Your task to perform on an android device: turn off notifications in google photos Image 0: 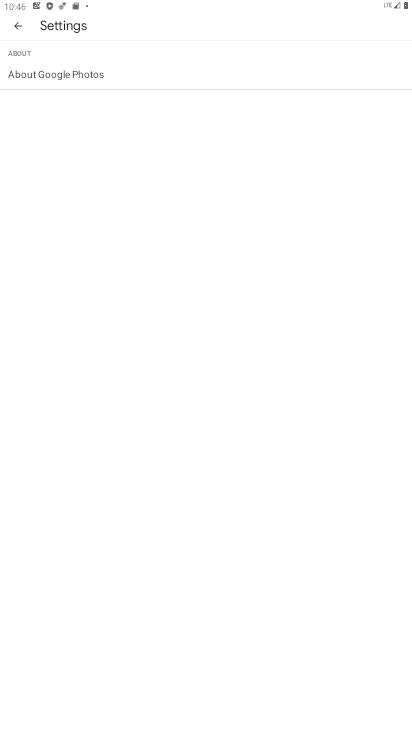
Step 0: press home button
Your task to perform on an android device: turn off notifications in google photos Image 1: 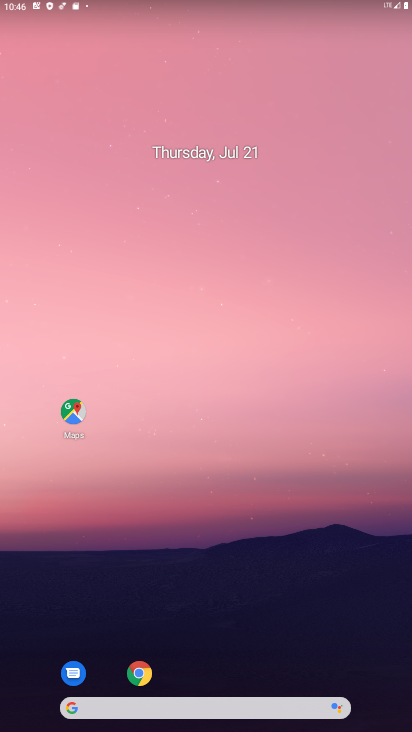
Step 1: drag from (214, 662) to (191, 285)
Your task to perform on an android device: turn off notifications in google photos Image 2: 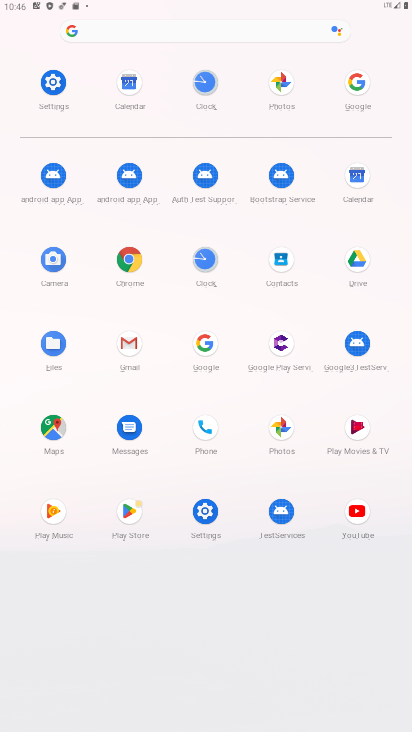
Step 2: click (286, 103)
Your task to perform on an android device: turn off notifications in google photos Image 3: 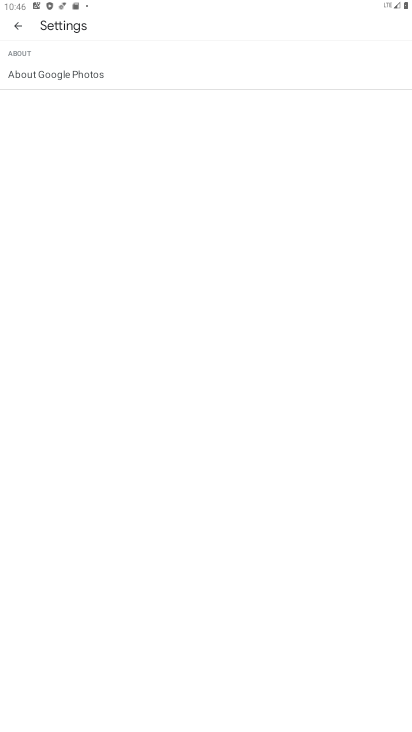
Step 3: click (21, 23)
Your task to perform on an android device: turn off notifications in google photos Image 4: 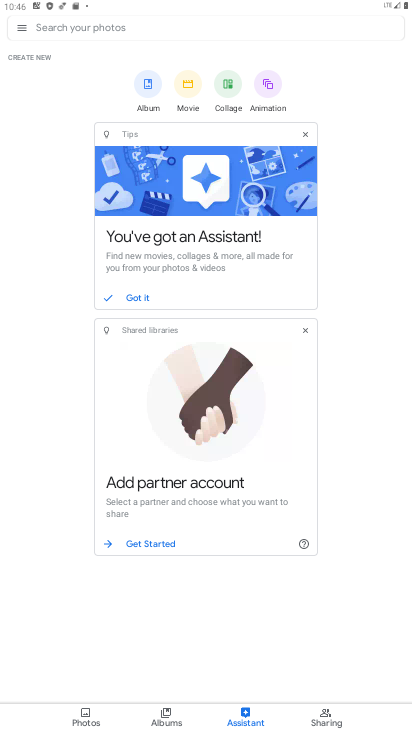
Step 4: click (26, 32)
Your task to perform on an android device: turn off notifications in google photos Image 5: 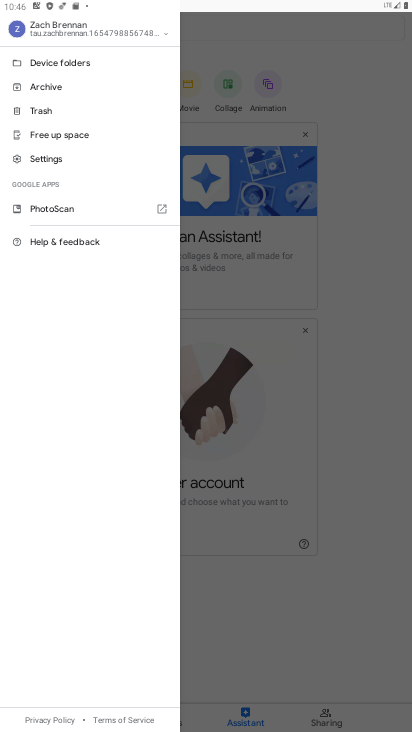
Step 5: click (64, 159)
Your task to perform on an android device: turn off notifications in google photos Image 6: 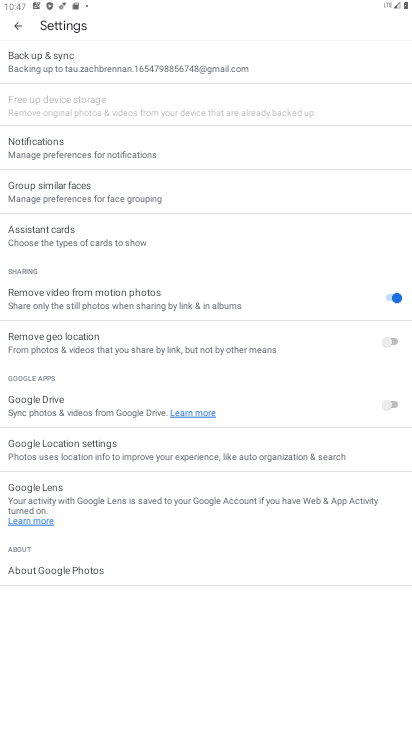
Step 6: click (41, 159)
Your task to perform on an android device: turn off notifications in google photos Image 7: 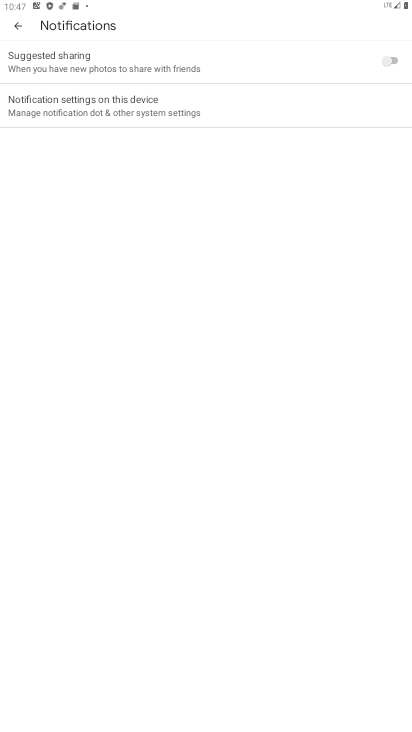
Step 7: click (72, 119)
Your task to perform on an android device: turn off notifications in google photos Image 8: 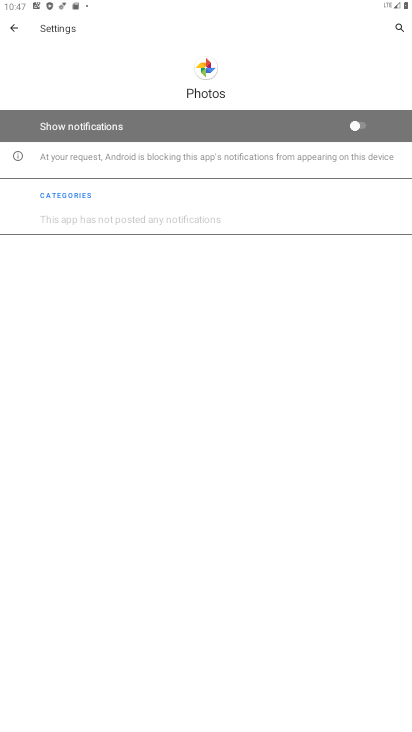
Step 8: task complete